Your task to perform on an android device: Open Wikipedia Image 0: 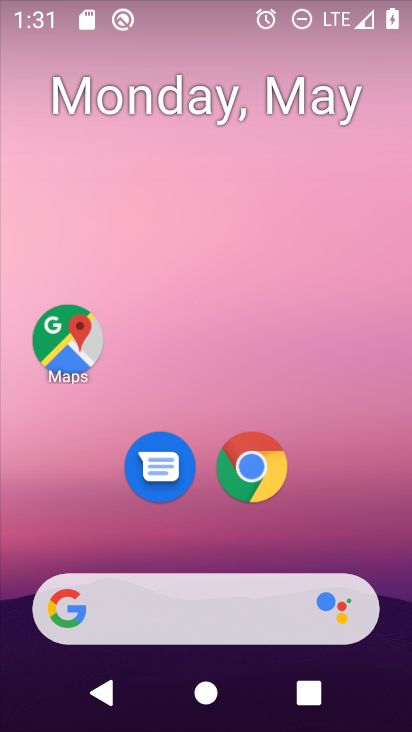
Step 0: click (256, 474)
Your task to perform on an android device: Open Wikipedia Image 1: 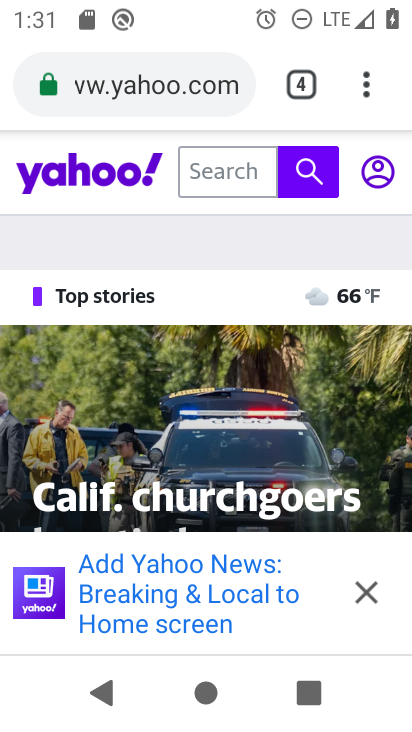
Step 1: click (135, 86)
Your task to perform on an android device: Open Wikipedia Image 2: 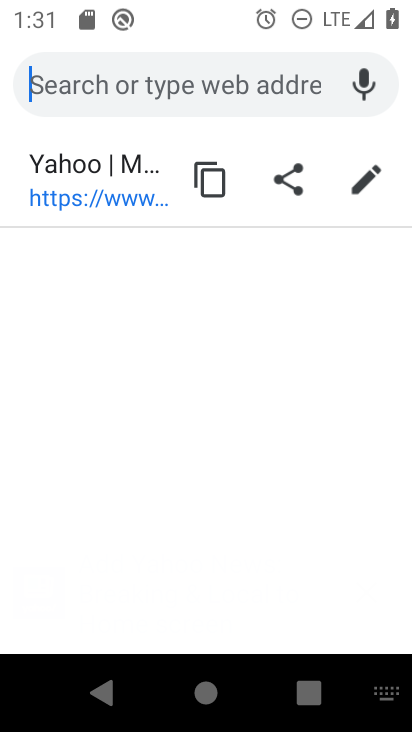
Step 2: type "wikipedia"
Your task to perform on an android device: Open Wikipedia Image 3: 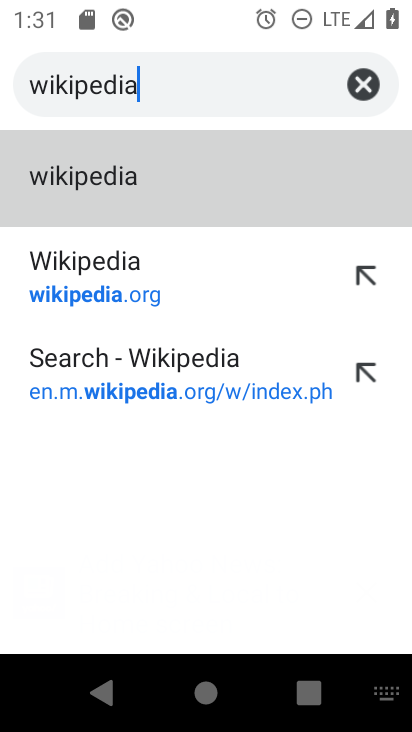
Step 3: click (94, 196)
Your task to perform on an android device: Open Wikipedia Image 4: 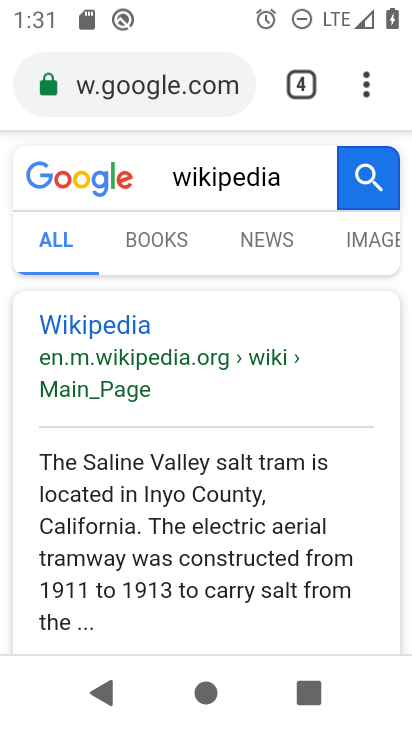
Step 4: click (95, 347)
Your task to perform on an android device: Open Wikipedia Image 5: 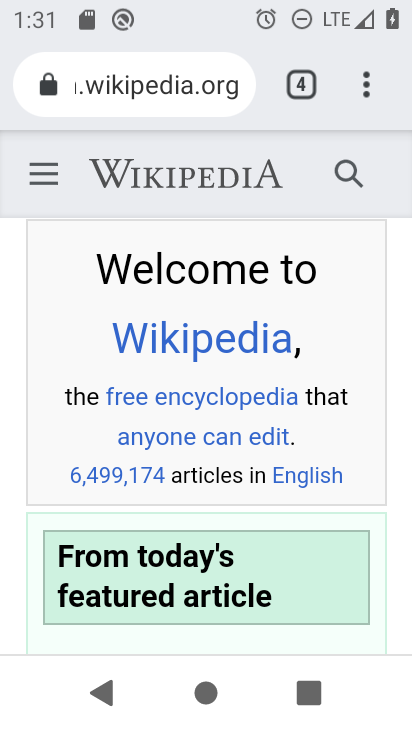
Step 5: task complete